Your task to perform on an android device: open chrome and create a bookmark for the current page Image 0: 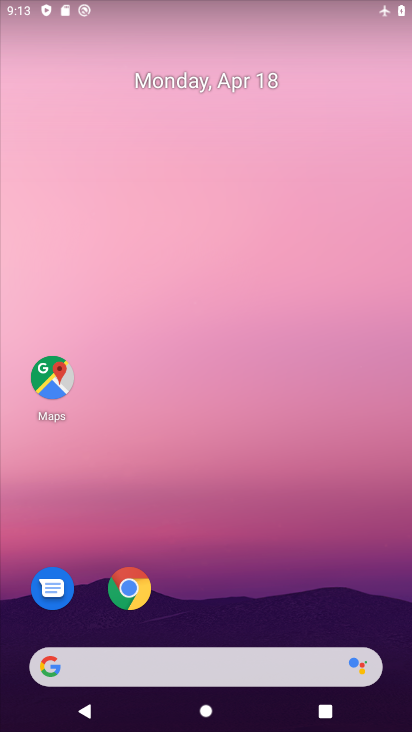
Step 0: drag from (228, 635) to (210, 311)
Your task to perform on an android device: open chrome and create a bookmark for the current page Image 1: 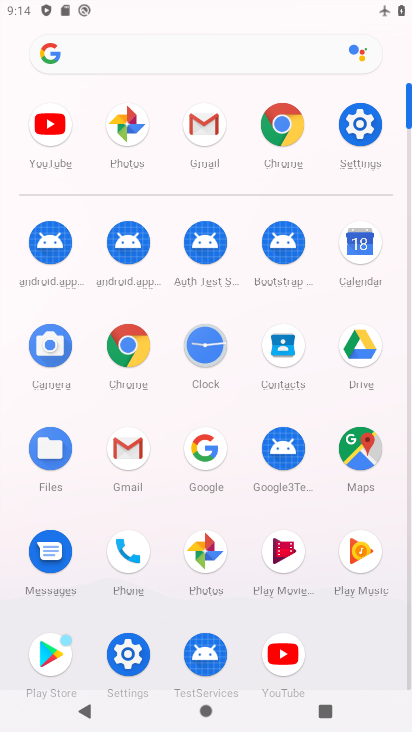
Step 1: click (262, 129)
Your task to perform on an android device: open chrome and create a bookmark for the current page Image 2: 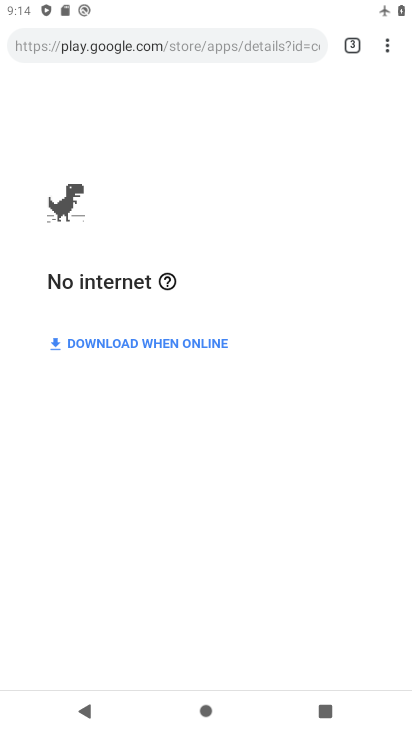
Step 2: click (385, 41)
Your task to perform on an android device: open chrome and create a bookmark for the current page Image 3: 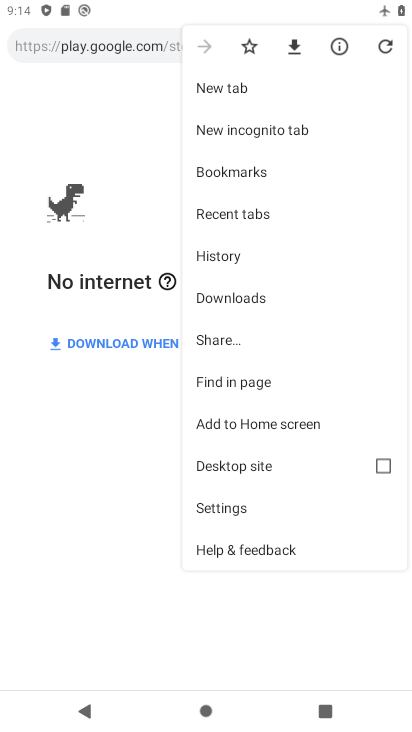
Step 3: click (289, 163)
Your task to perform on an android device: open chrome and create a bookmark for the current page Image 4: 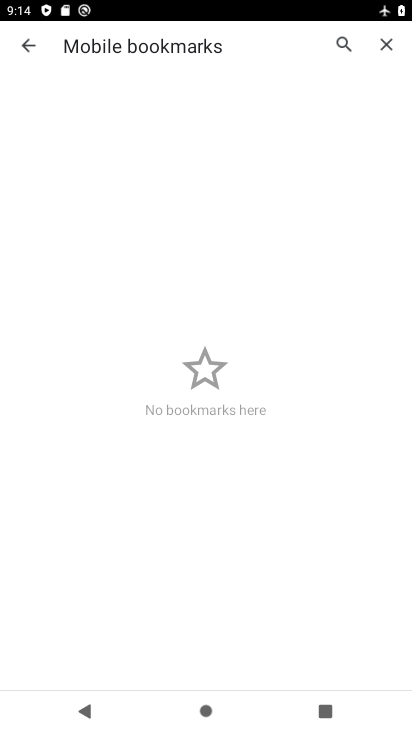
Step 4: task complete